Your task to perform on an android device: View the shopping cart on amazon.com. Image 0: 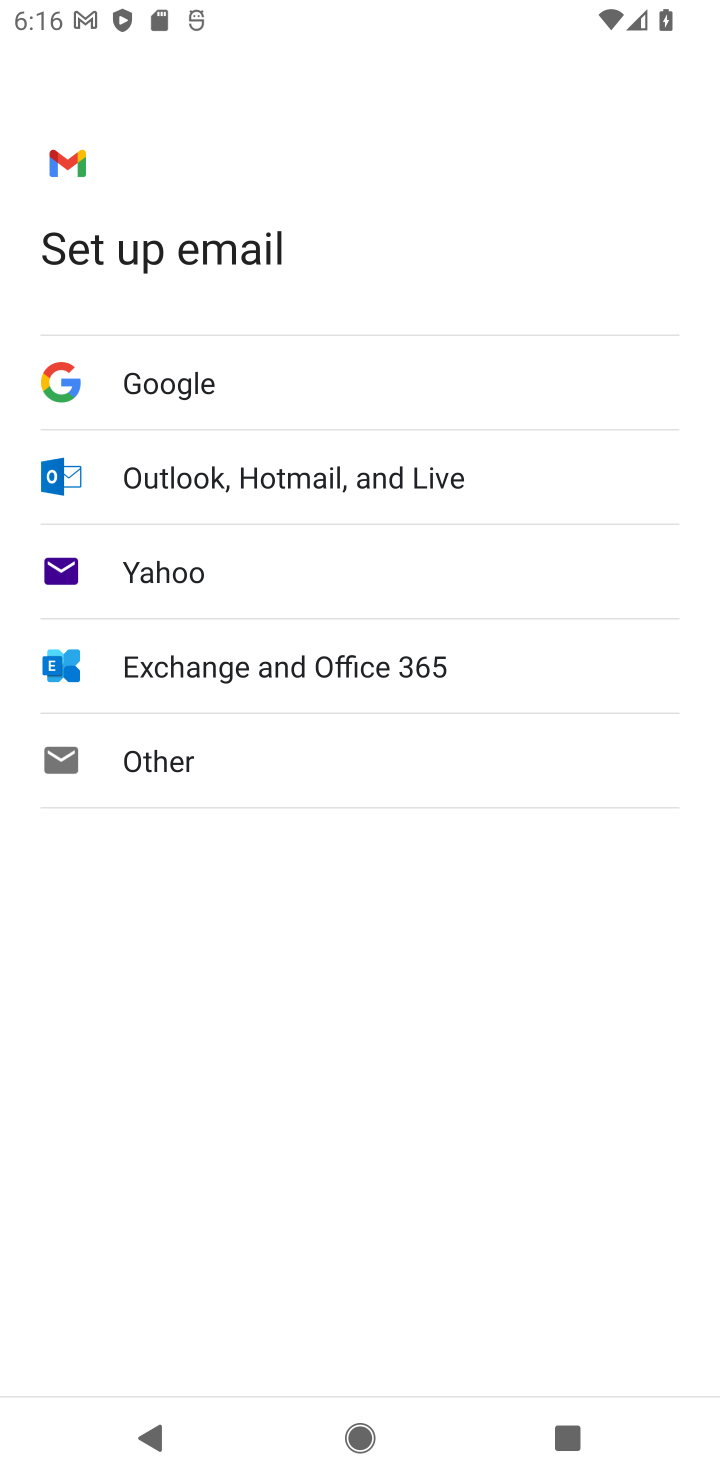
Step 0: press home button
Your task to perform on an android device: View the shopping cart on amazon.com. Image 1: 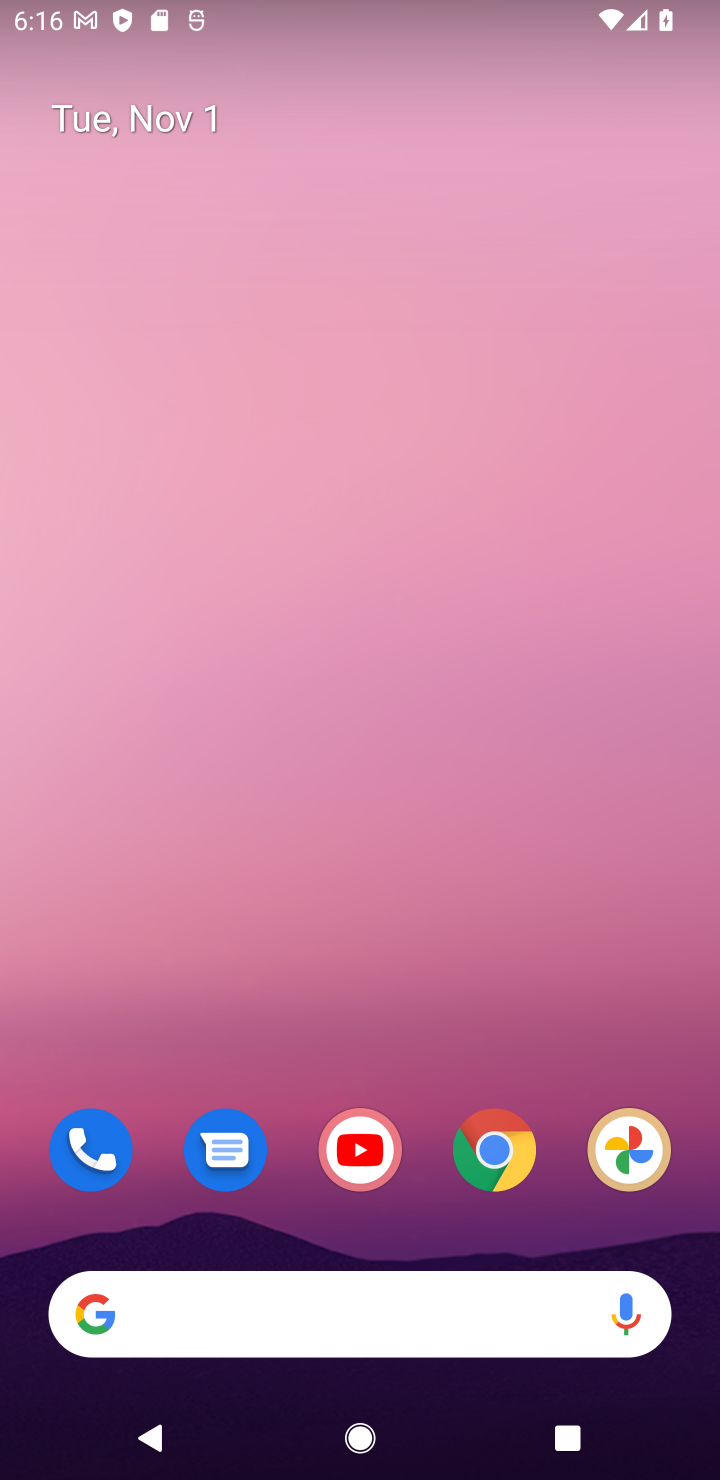
Step 1: click (487, 1159)
Your task to perform on an android device: View the shopping cart on amazon.com. Image 2: 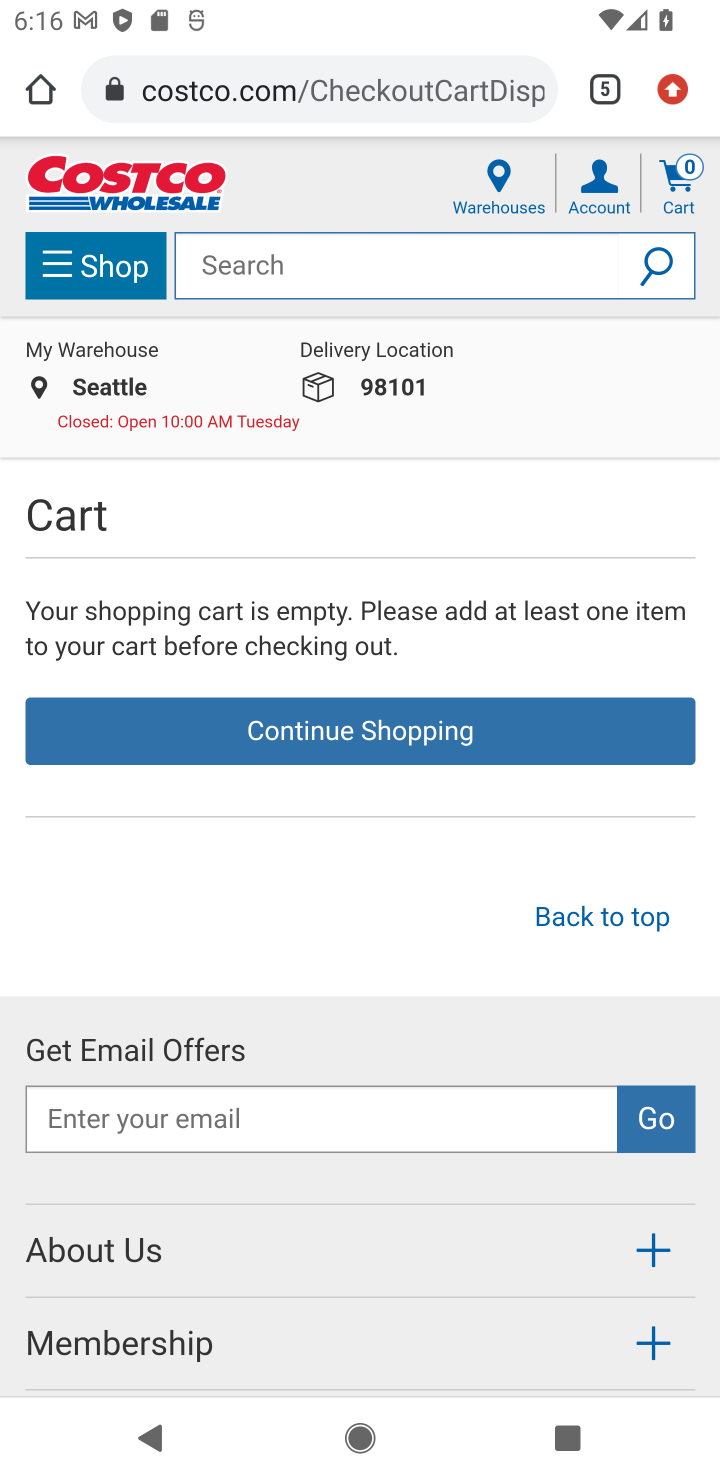
Step 2: click (584, 85)
Your task to perform on an android device: View the shopping cart on amazon.com. Image 3: 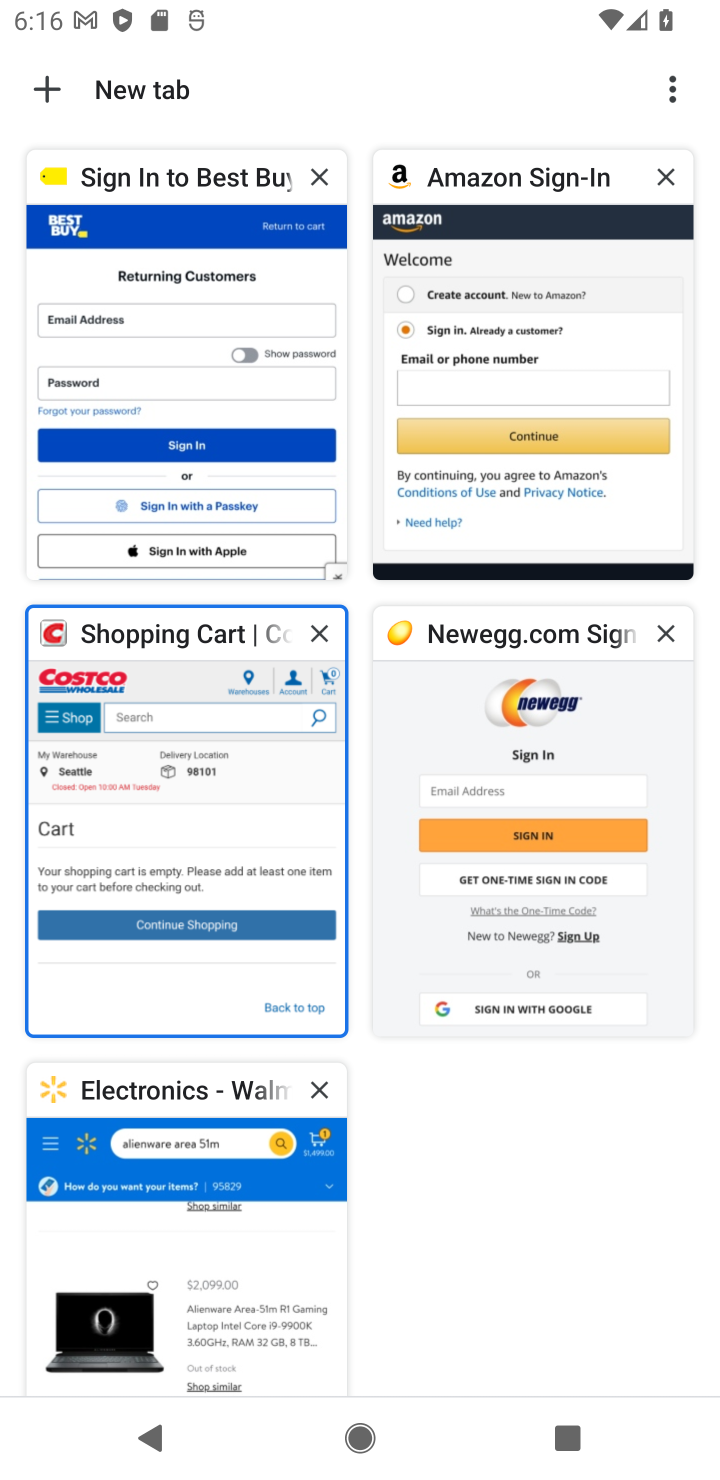
Step 3: click (526, 345)
Your task to perform on an android device: View the shopping cart on amazon.com. Image 4: 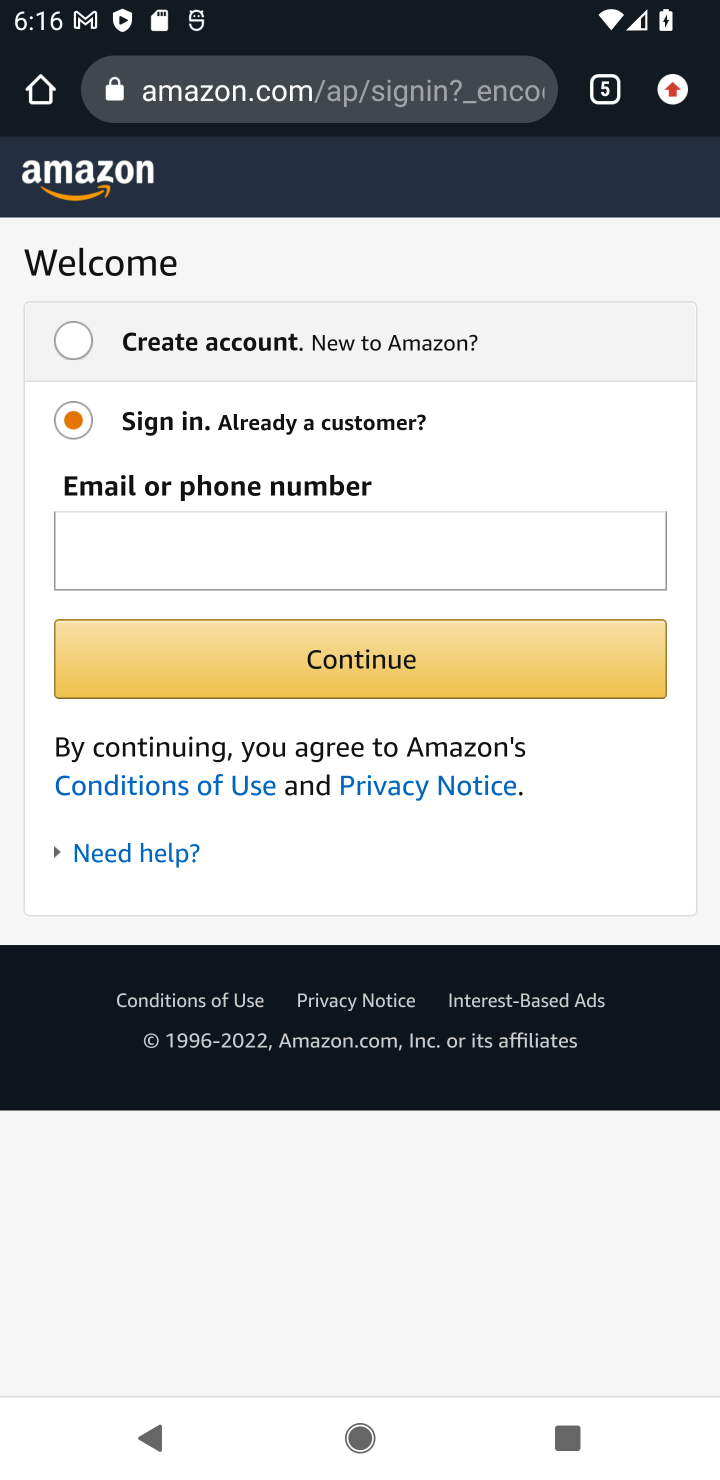
Step 4: press back button
Your task to perform on an android device: View the shopping cart on amazon.com. Image 5: 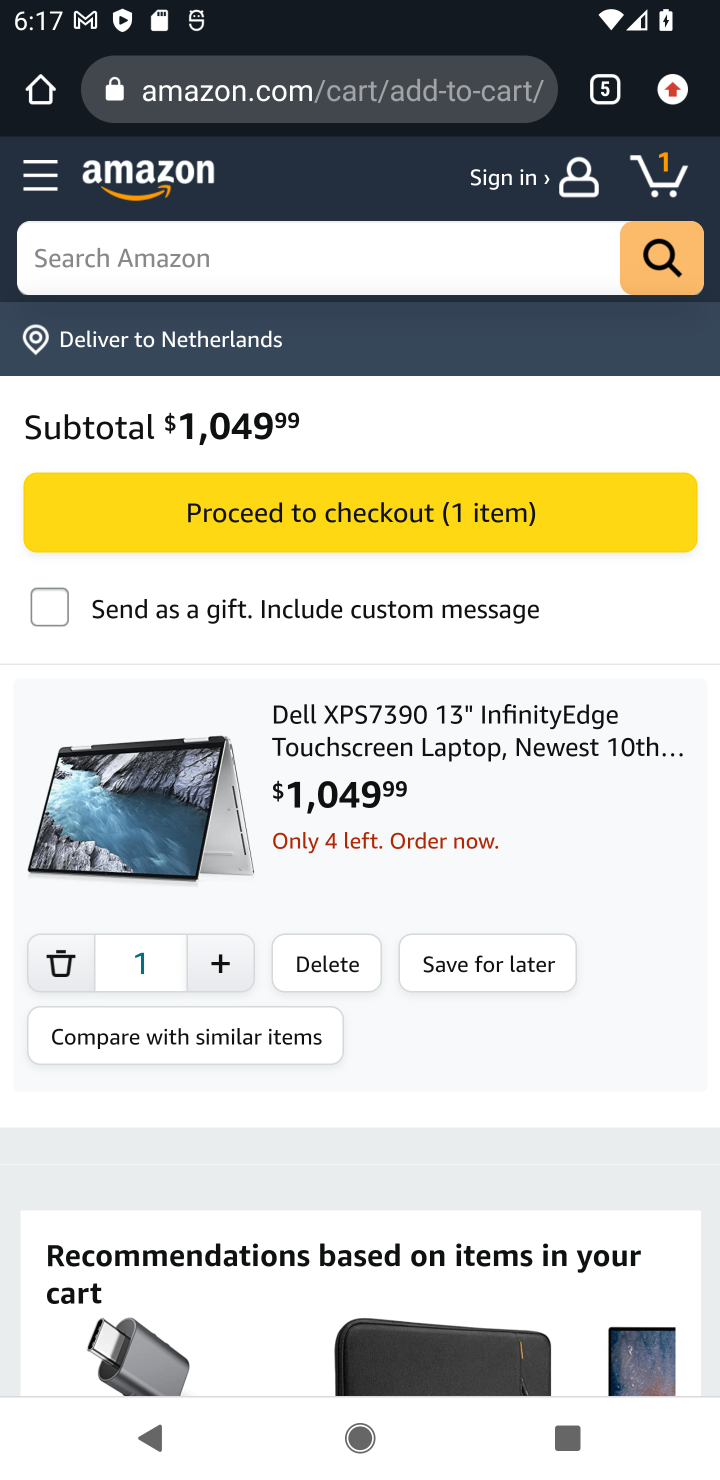
Step 5: click (653, 193)
Your task to perform on an android device: View the shopping cart on amazon.com. Image 6: 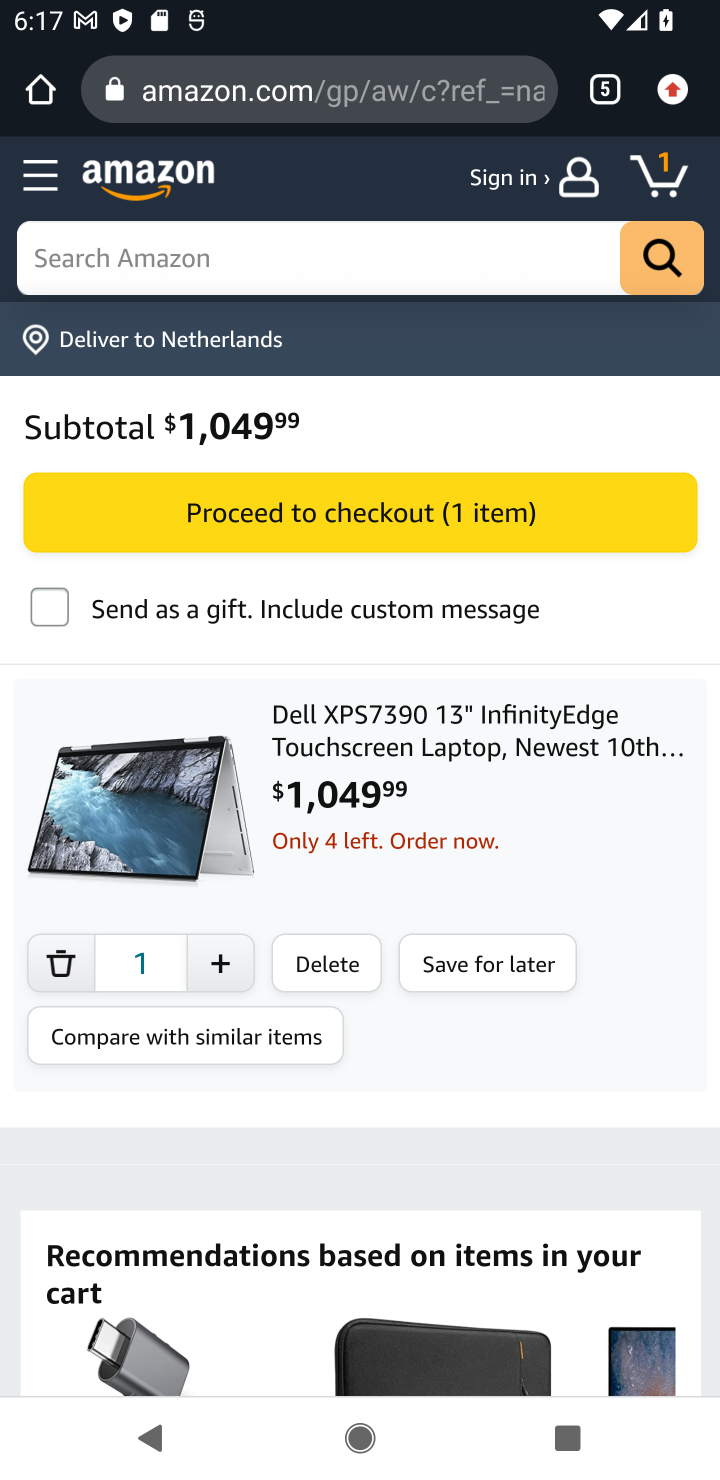
Step 6: click (670, 166)
Your task to perform on an android device: View the shopping cart on amazon.com. Image 7: 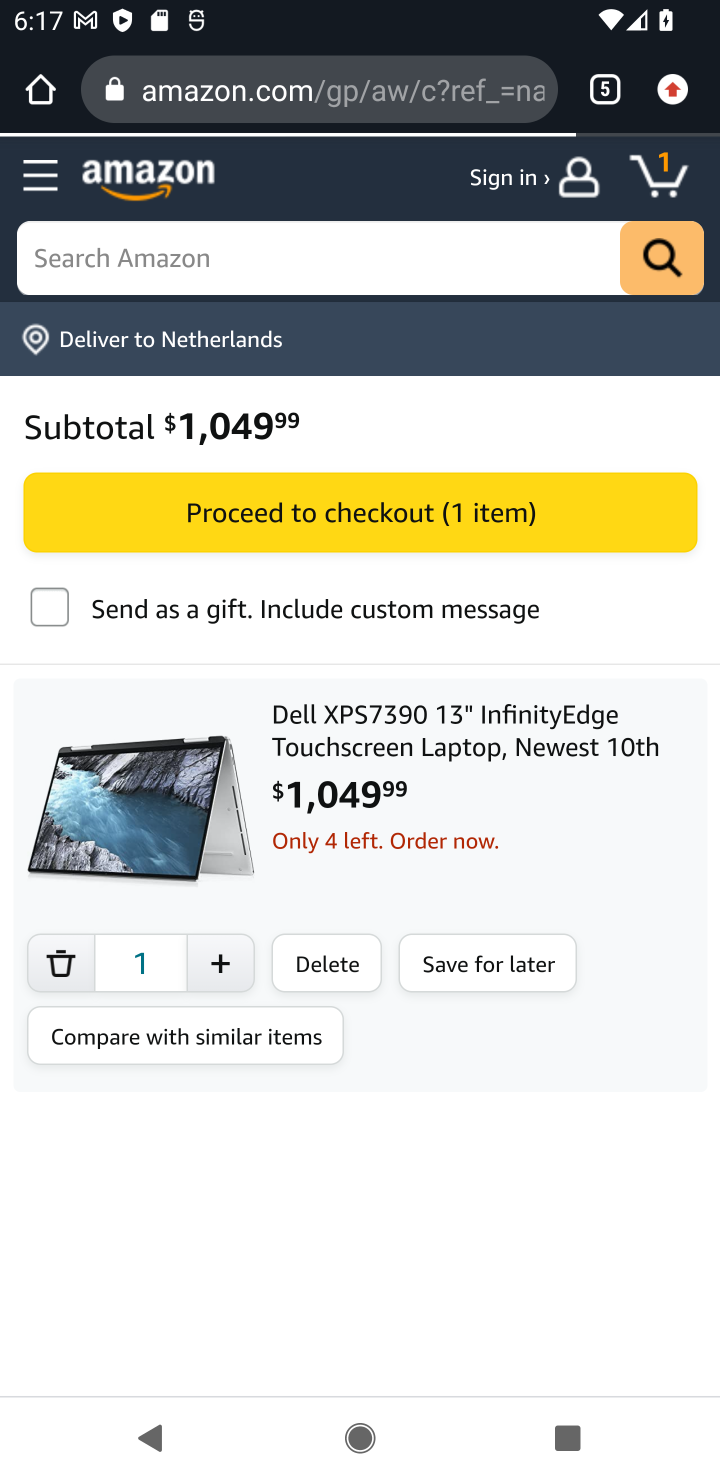
Step 7: click (315, 948)
Your task to perform on an android device: View the shopping cart on amazon.com. Image 8: 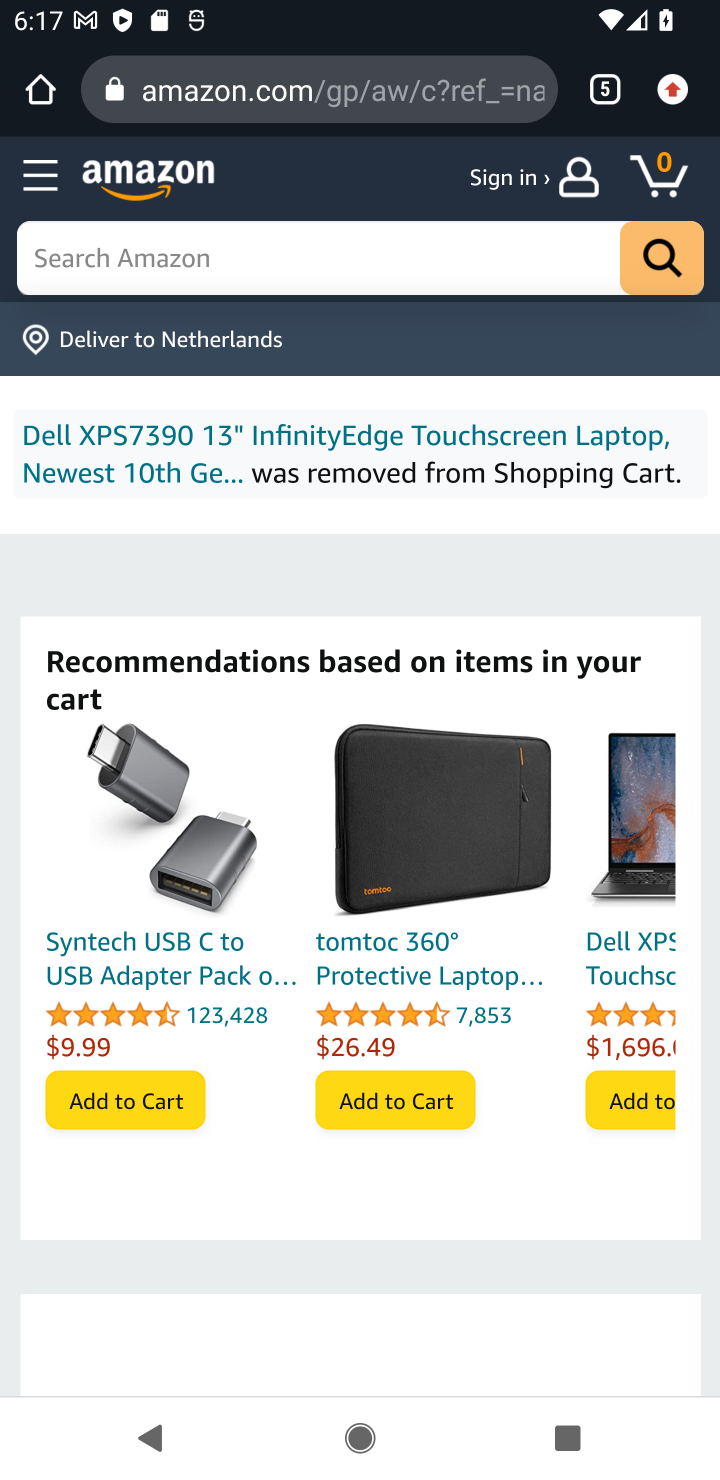
Step 8: task complete